Your task to perform on an android device: check out phone information Image 0: 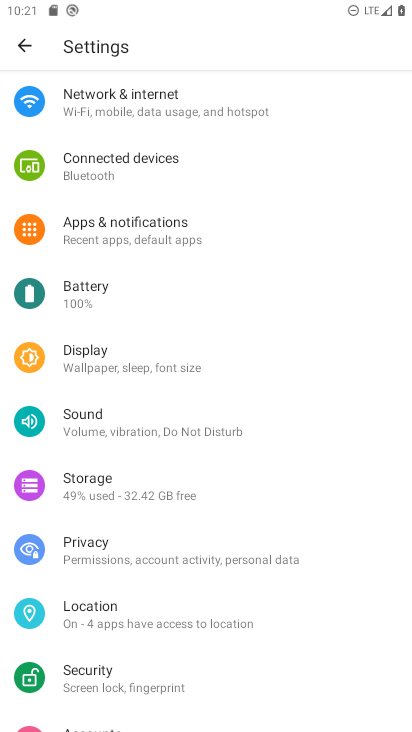
Step 0: press home button
Your task to perform on an android device: check out phone information Image 1: 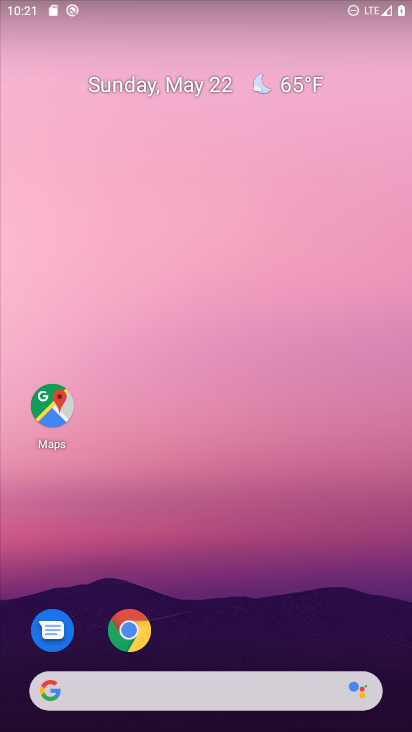
Step 1: drag from (135, 675) to (293, 91)
Your task to perform on an android device: check out phone information Image 2: 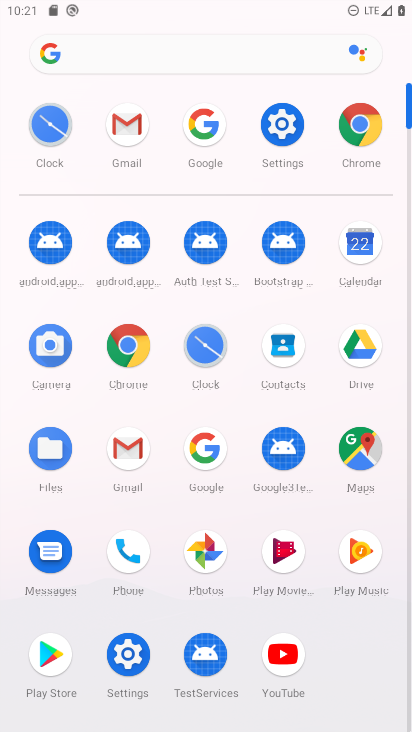
Step 2: click (296, 130)
Your task to perform on an android device: check out phone information Image 3: 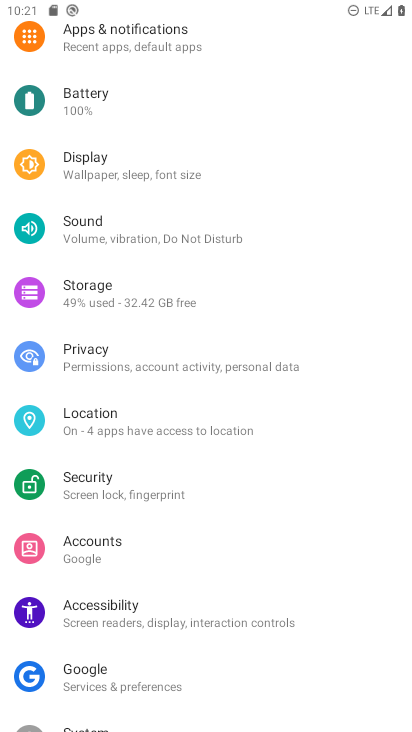
Step 3: drag from (251, 679) to (394, 51)
Your task to perform on an android device: check out phone information Image 4: 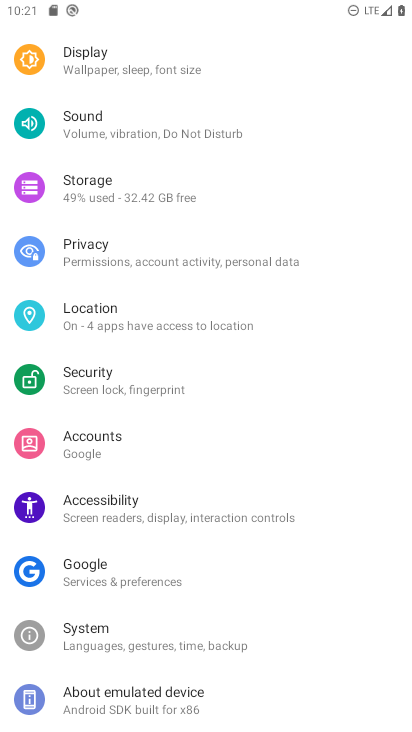
Step 4: click (151, 696)
Your task to perform on an android device: check out phone information Image 5: 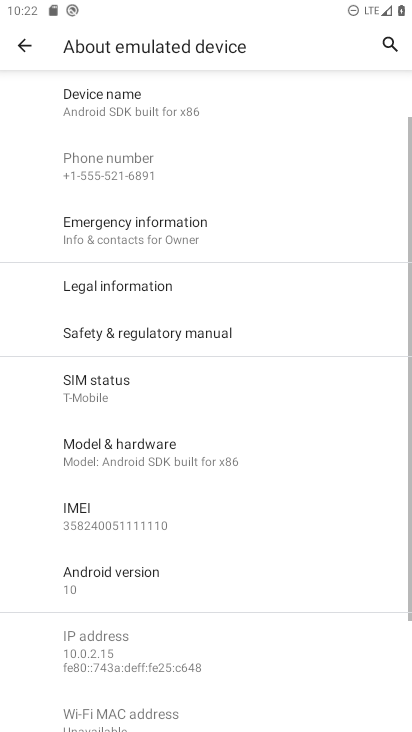
Step 5: task complete